Your task to perform on an android device: show emergency info Image 0: 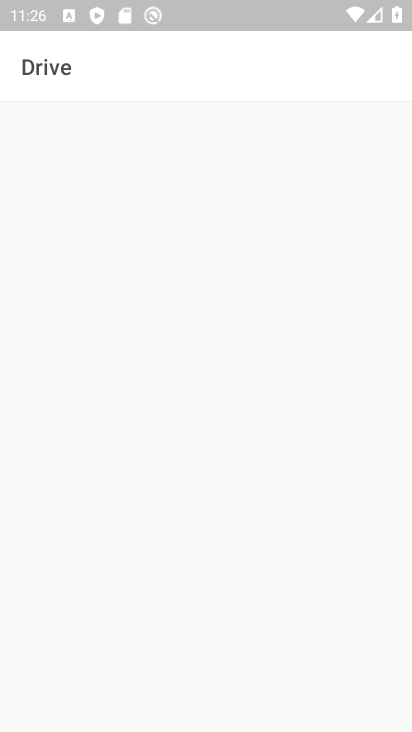
Step 0: press home button
Your task to perform on an android device: show emergency info Image 1: 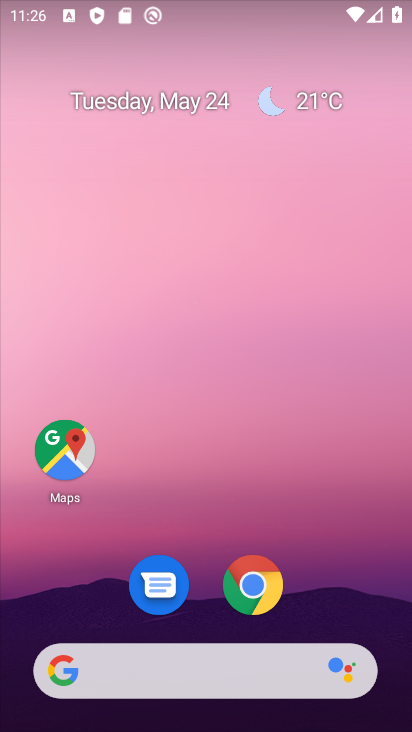
Step 1: drag from (243, 479) to (285, 21)
Your task to perform on an android device: show emergency info Image 2: 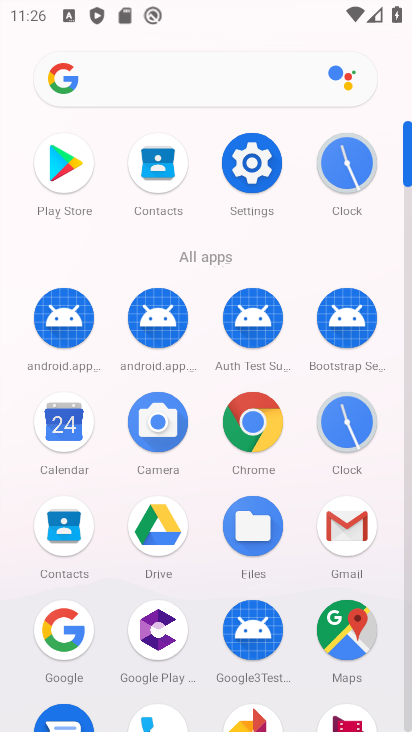
Step 2: click (256, 155)
Your task to perform on an android device: show emergency info Image 3: 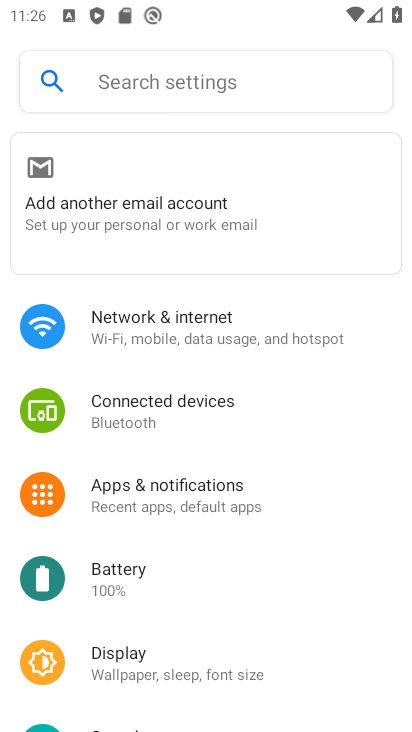
Step 3: drag from (232, 567) to (269, 107)
Your task to perform on an android device: show emergency info Image 4: 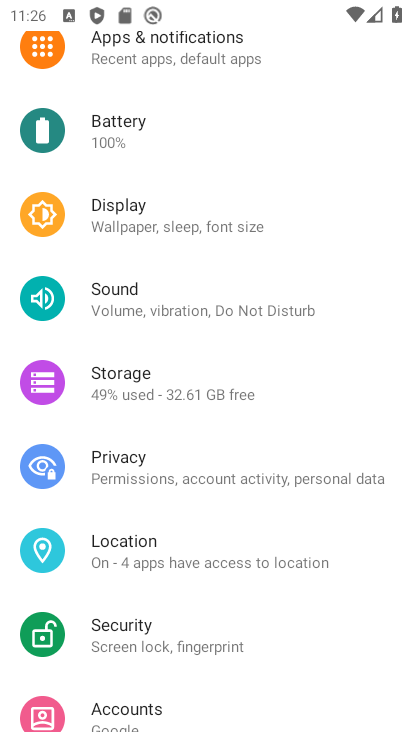
Step 4: drag from (244, 591) to (262, 67)
Your task to perform on an android device: show emergency info Image 5: 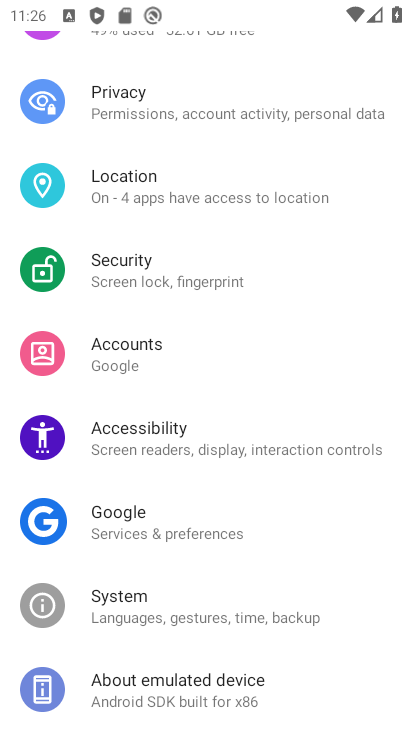
Step 5: click (168, 679)
Your task to perform on an android device: show emergency info Image 6: 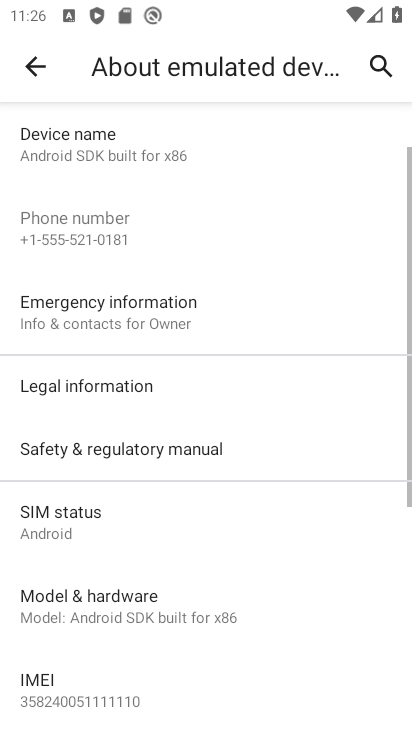
Step 6: click (198, 324)
Your task to perform on an android device: show emergency info Image 7: 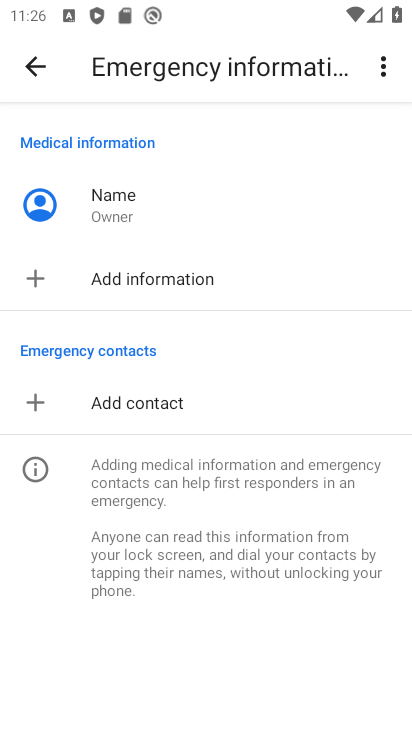
Step 7: task complete